Your task to perform on an android device: View the shopping cart on newegg. Search for apple airpods pro on newegg, select the first entry, and add it to the cart. Image 0: 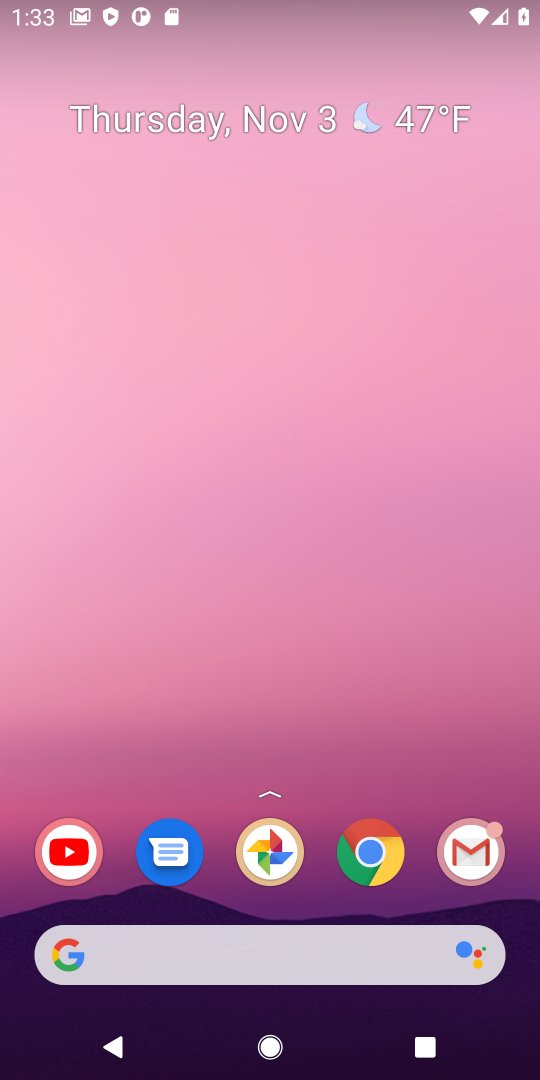
Step 0: click (379, 867)
Your task to perform on an android device: View the shopping cart on newegg. Search for apple airpods pro on newegg, select the first entry, and add it to the cart. Image 1: 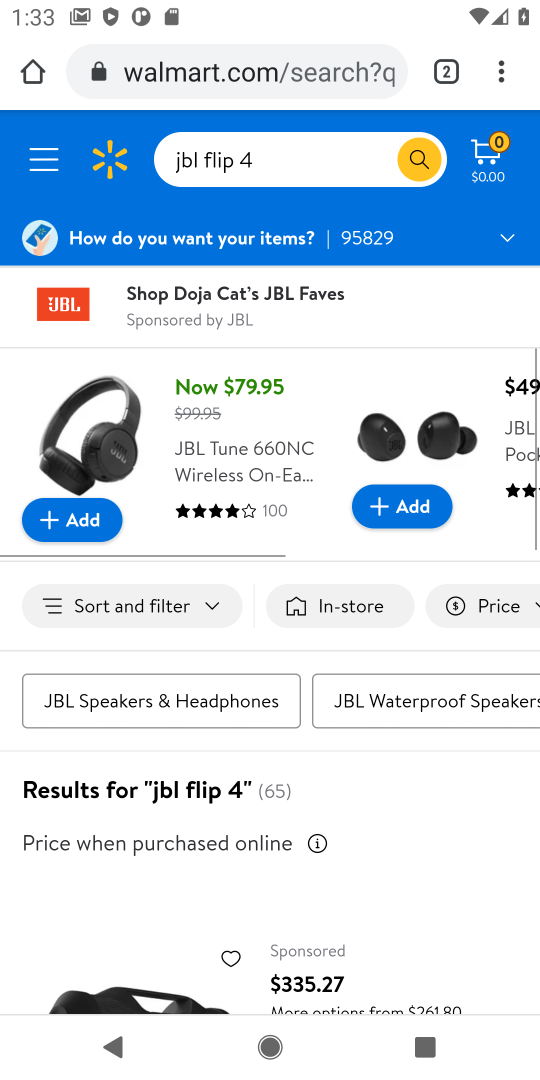
Step 1: click (212, 78)
Your task to perform on an android device: View the shopping cart on newegg. Search for apple airpods pro on newegg, select the first entry, and add it to the cart. Image 2: 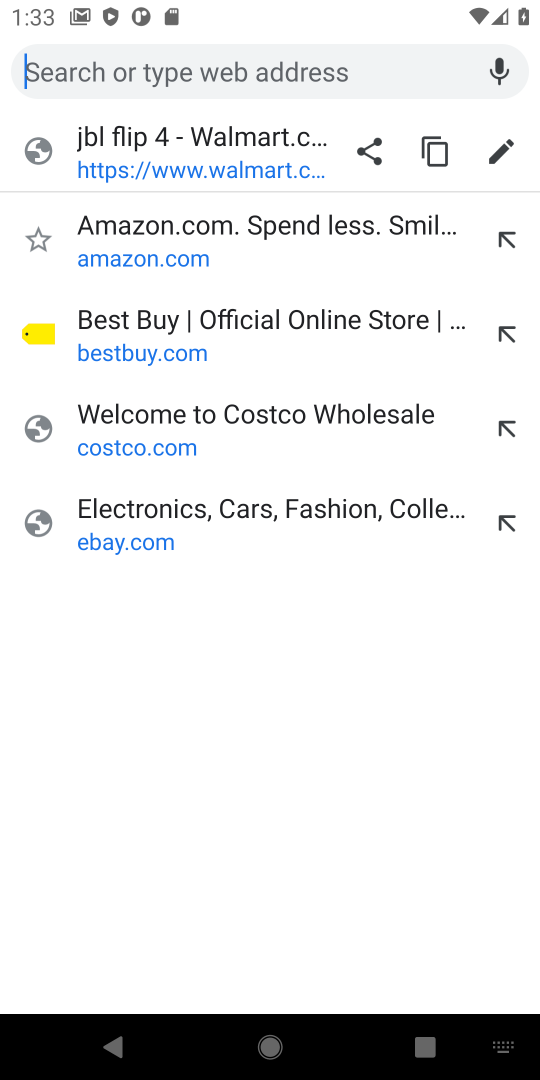
Step 2: type "newegg.com"
Your task to perform on an android device: View the shopping cart on newegg. Search for apple airpods pro on newegg, select the first entry, and add it to the cart. Image 3: 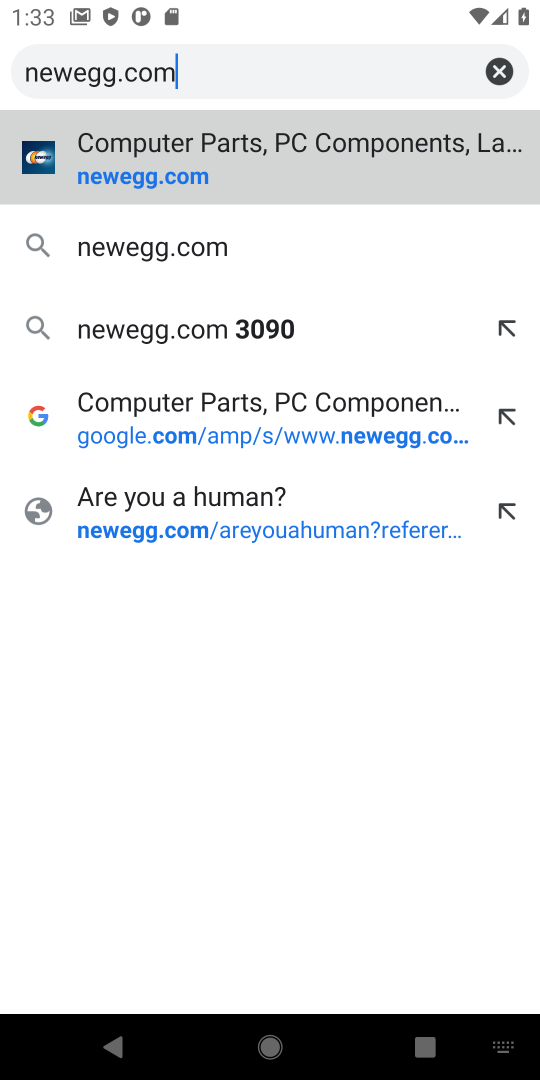
Step 3: click (182, 249)
Your task to perform on an android device: View the shopping cart on newegg. Search for apple airpods pro on newegg, select the first entry, and add it to the cart. Image 4: 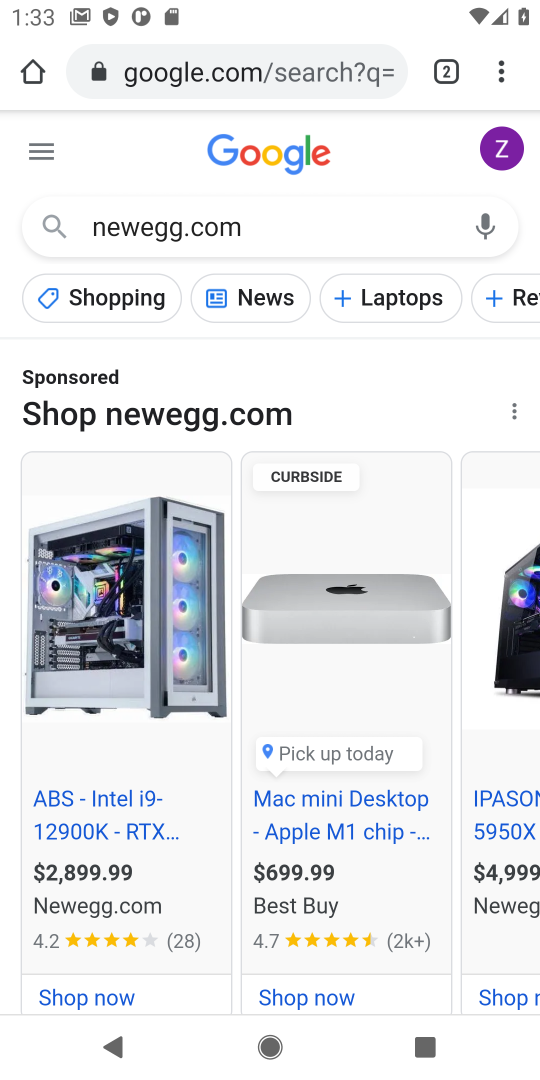
Step 4: drag from (246, 786) to (233, 237)
Your task to perform on an android device: View the shopping cart on newegg. Search for apple airpods pro on newegg, select the first entry, and add it to the cart. Image 5: 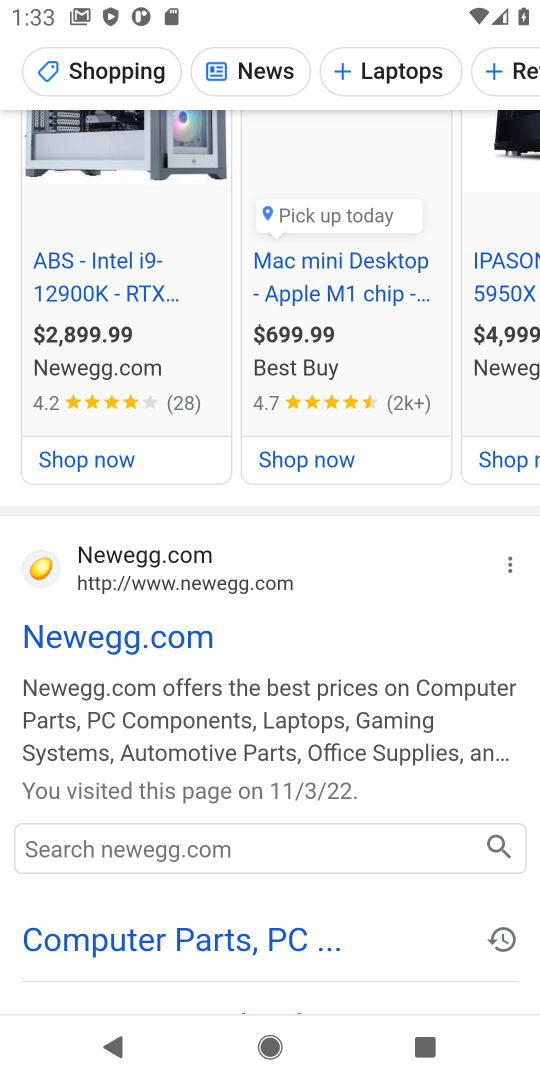
Step 5: click (138, 701)
Your task to perform on an android device: View the shopping cart on newegg. Search for apple airpods pro on newegg, select the first entry, and add it to the cart. Image 6: 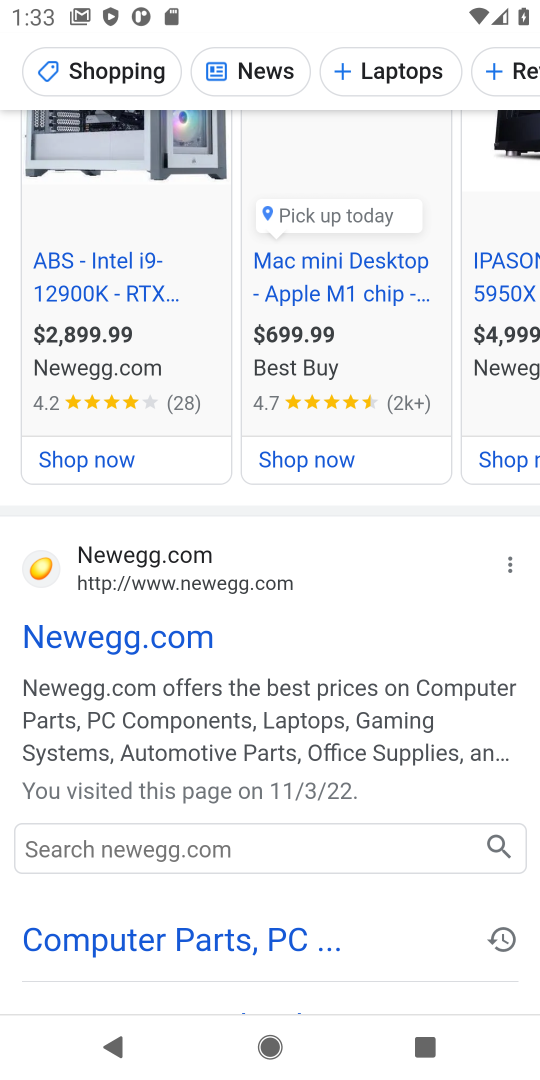
Step 6: click (139, 607)
Your task to perform on an android device: View the shopping cart on newegg. Search for apple airpods pro on newegg, select the first entry, and add it to the cart. Image 7: 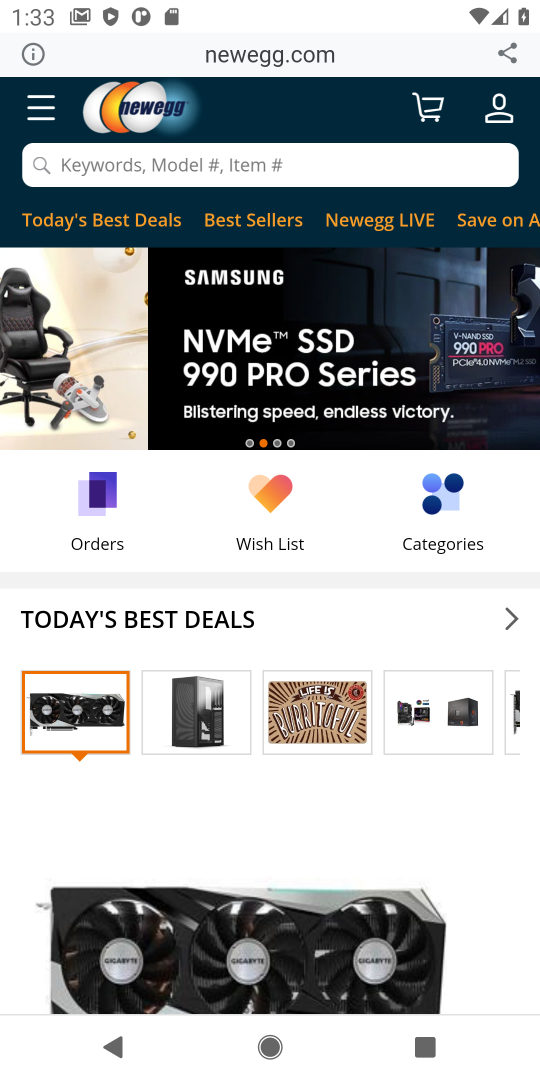
Step 7: click (419, 112)
Your task to perform on an android device: View the shopping cart on newegg. Search for apple airpods pro on newegg, select the first entry, and add it to the cart. Image 8: 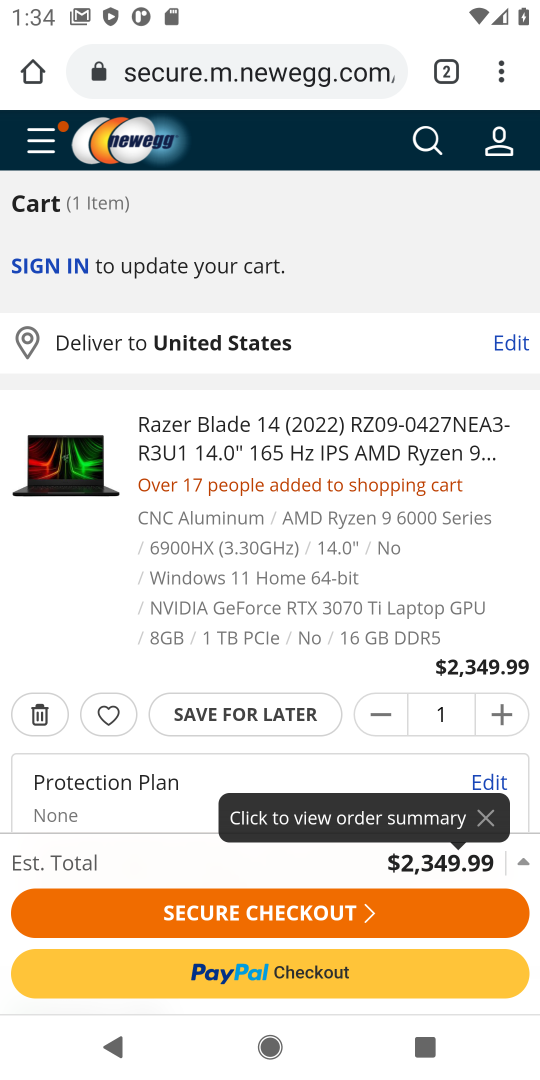
Step 8: click (428, 149)
Your task to perform on an android device: View the shopping cart on newegg. Search for apple airpods pro on newegg, select the first entry, and add it to the cart. Image 9: 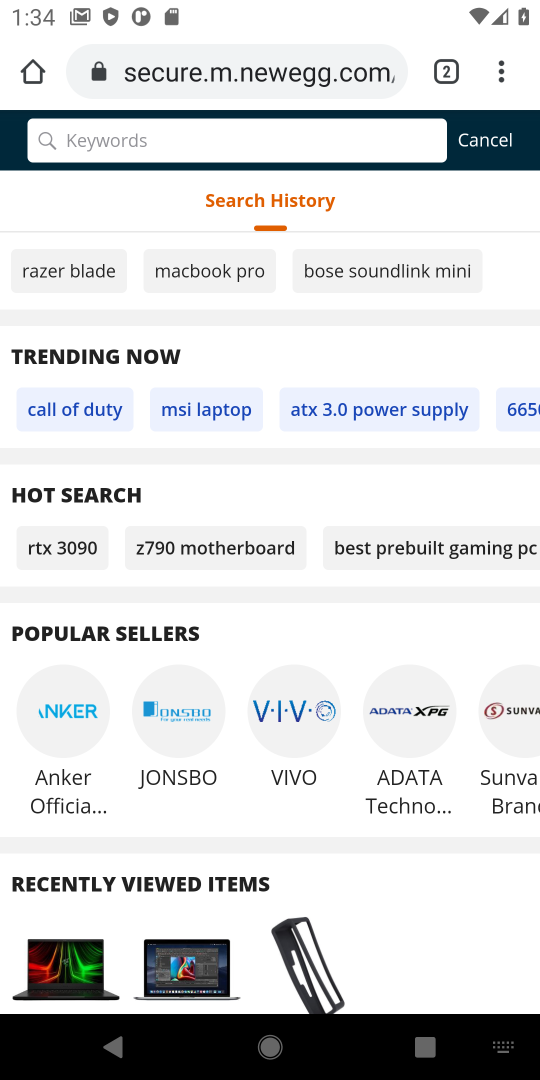
Step 9: type "apple airpods pro"
Your task to perform on an android device: View the shopping cart on newegg. Search for apple airpods pro on newegg, select the first entry, and add it to the cart. Image 10: 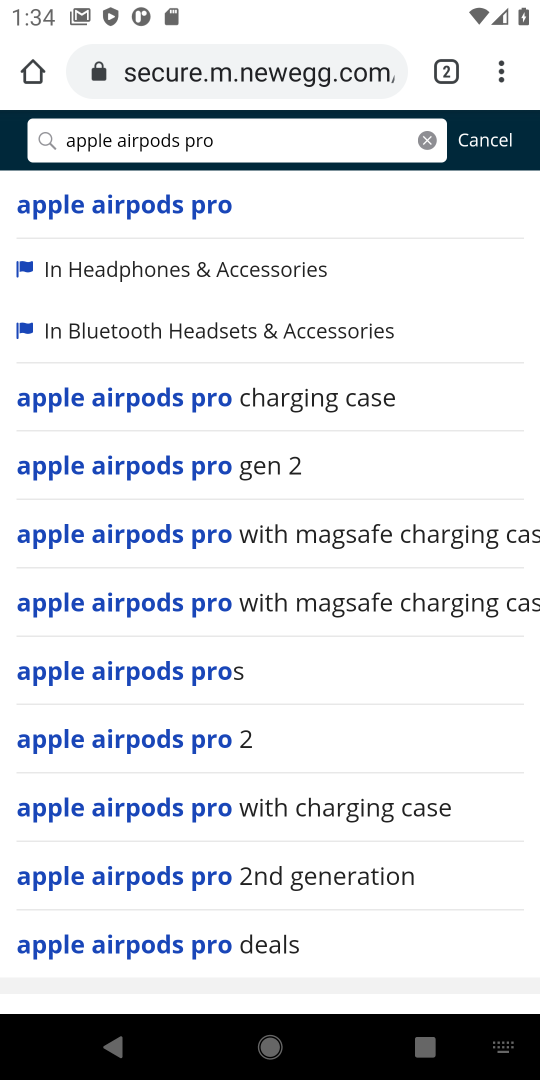
Step 10: click (136, 218)
Your task to perform on an android device: View the shopping cart on newegg. Search for apple airpods pro on newegg, select the first entry, and add it to the cart. Image 11: 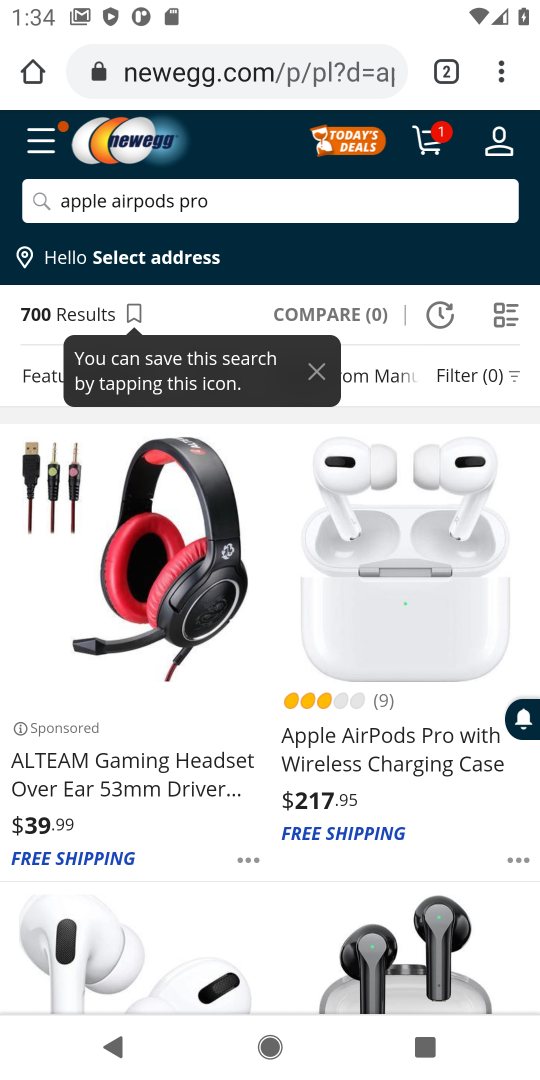
Step 11: task complete